Your task to perform on an android device: Show me productivity apps on the Play Store Image 0: 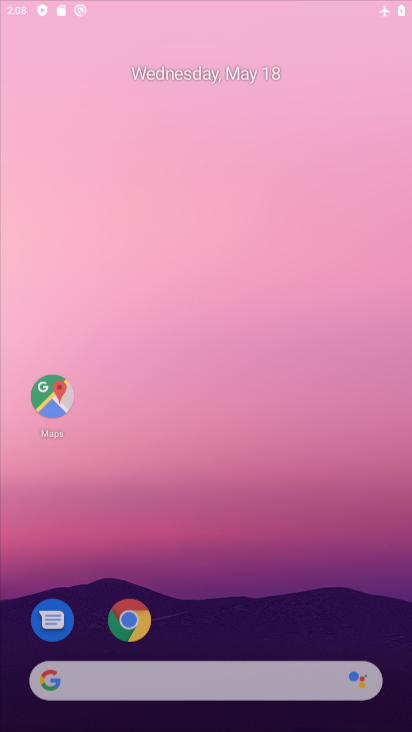
Step 0: click (212, 264)
Your task to perform on an android device: Show me productivity apps on the Play Store Image 1: 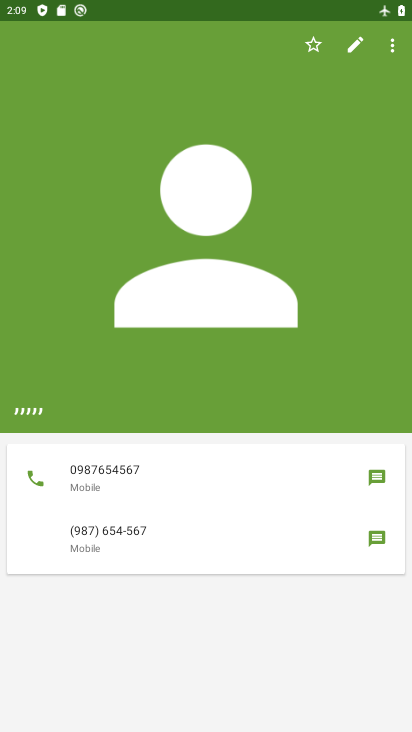
Step 1: press home button
Your task to perform on an android device: Show me productivity apps on the Play Store Image 2: 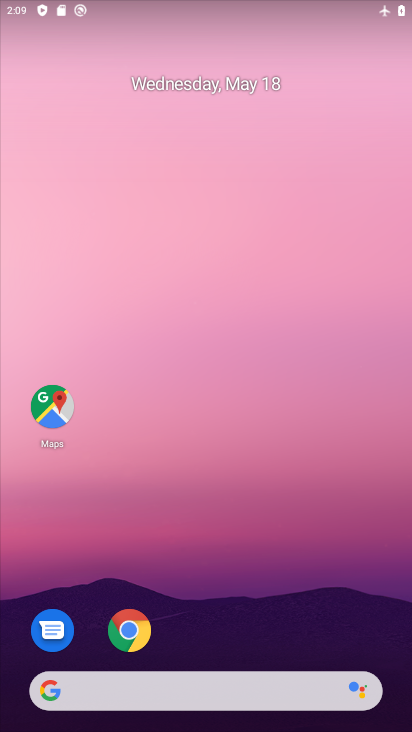
Step 2: drag from (204, 647) to (189, 203)
Your task to perform on an android device: Show me productivity apps on the Play Store Image 3: 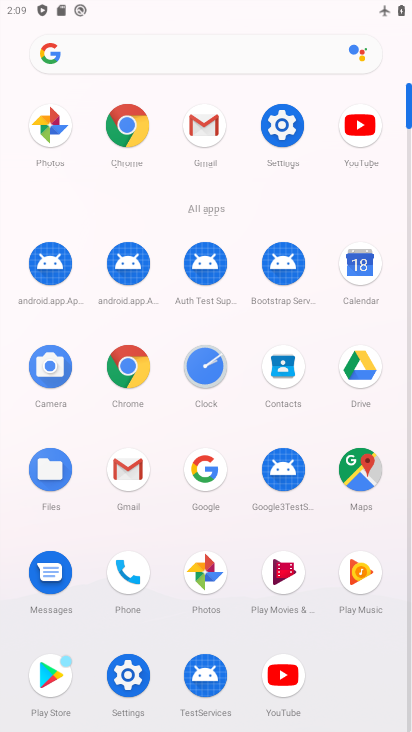
Step 3: click (56, 661)
Your task to perform on an android device: Show me productivity apps on the Play Store Image 4: 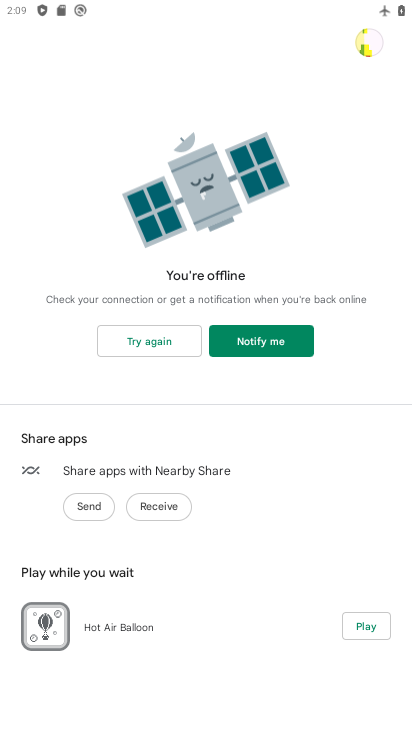
Step 4: task complete